Your task to perform on an android device: add a contact in the contacts app Image 0: 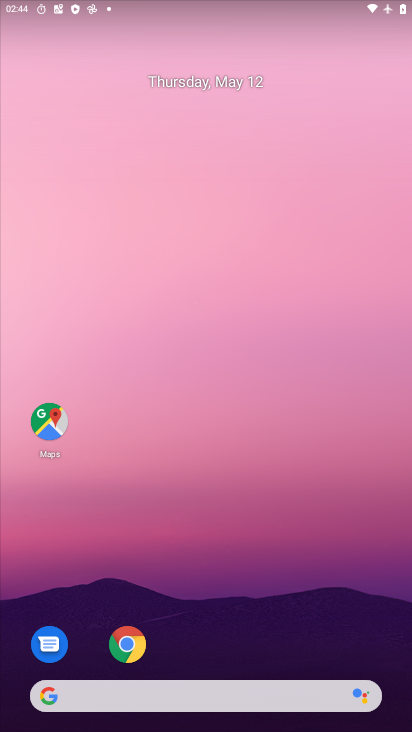
Step 0: drag from (260, 554) to (157, 38)
Your task to perform on an android device: add a contact in the contacts app Image 1: 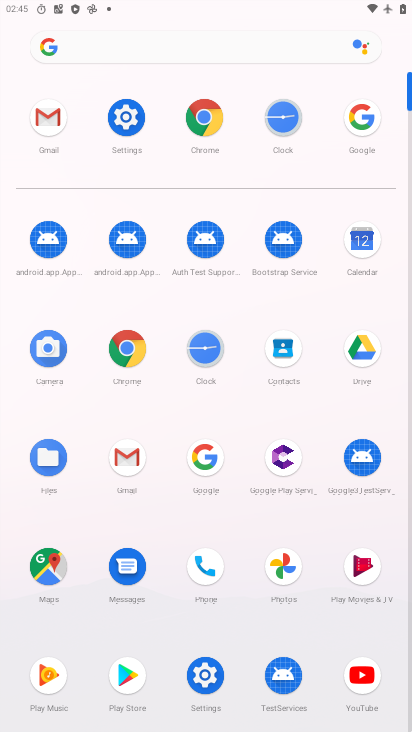
Step 1: click (279, 360)
Your task to perform on an android device: add a contact in the contacts app Image 2: 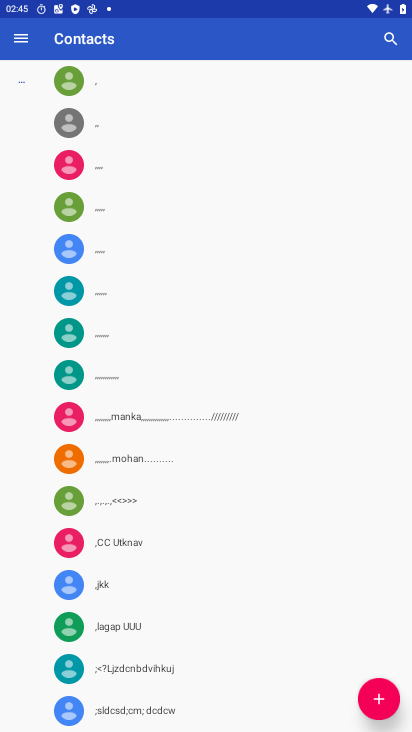
Step 2: click (376, 700)
Your task to perform on an android device: add a contact in the contacts app Image 3: 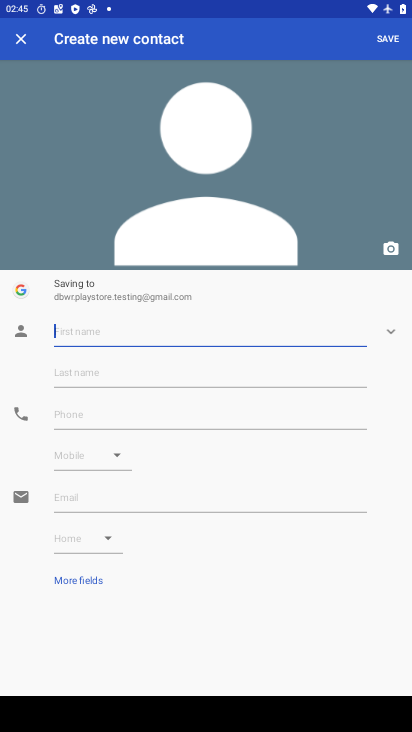
Step 3: type "fgsdfgs"
Your task to perform on an android device: add a contact in the contacts app Image 4: 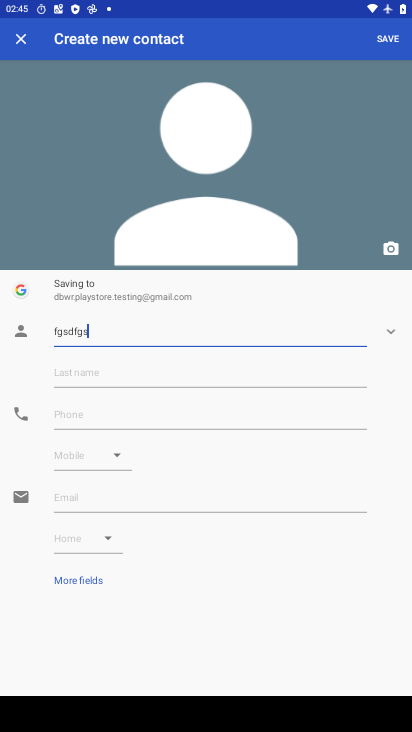
Step 4: click (131, 370)
Your task to perform on an android device: add a contact in the contacts app Image 5: 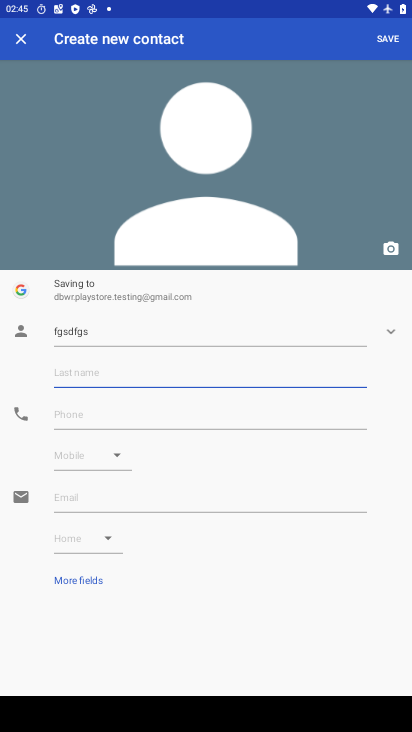
Step 5: type "fgsdfg"
Your task to perform on an android device: add a contact in the contacts app Image 6: 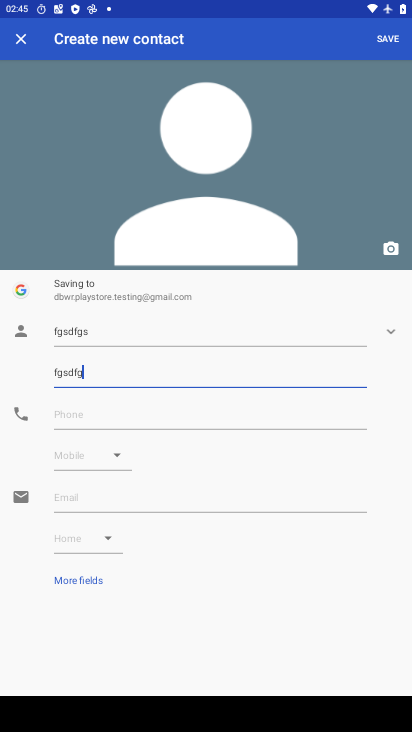
Step 6: click (124, 412)
Your task to perform on an android device: add a contact in the contacts app Image 7: 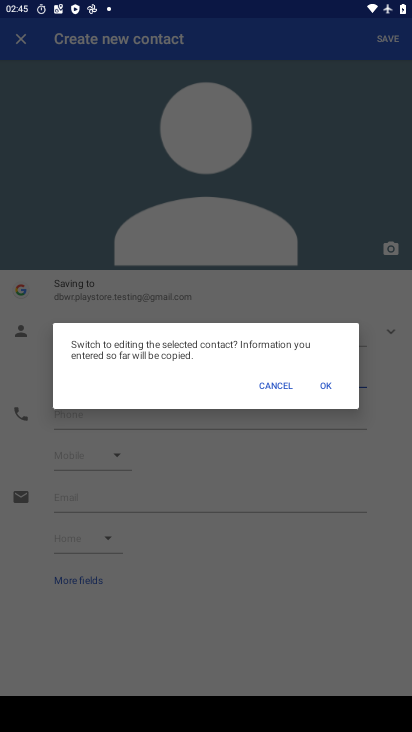
Step 7: type "56456345"
Your task to perform on an android device: add a contact in the contacts app Image 8: 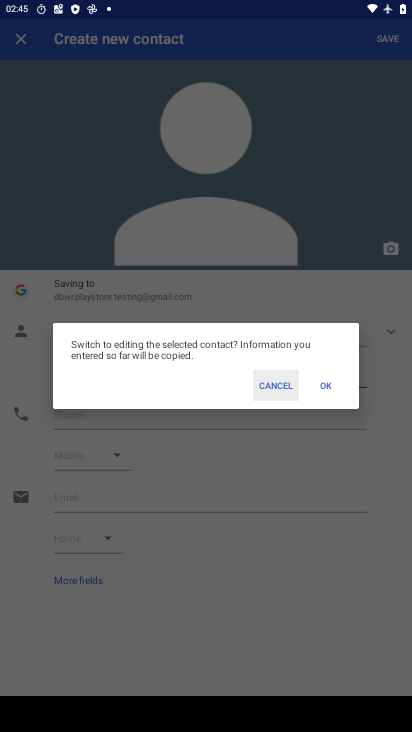
Step 8: type ""
Your task to perform on an android device: add a contact in the contacts app Image 9: 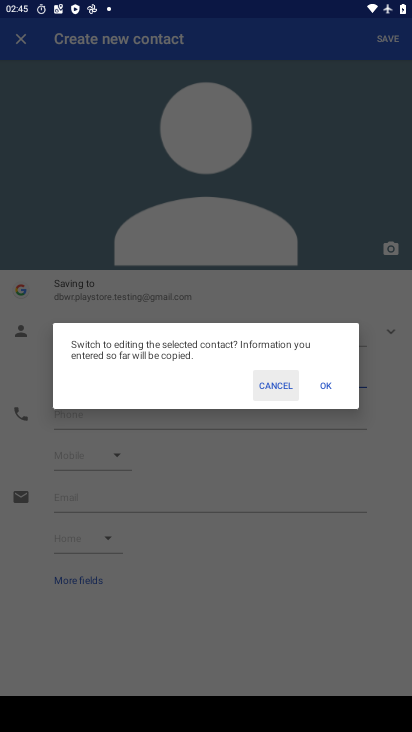
Step 9: click (279, 383)
Your task to perform on an android device: add a contact in the contacts app Image 10: 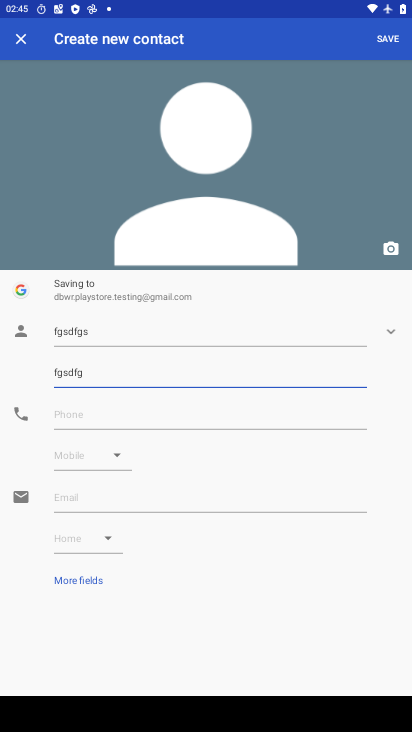
Step 10: click (213, 422)
Your task to perform on an android device: add a contact in the contacts app Image 11: 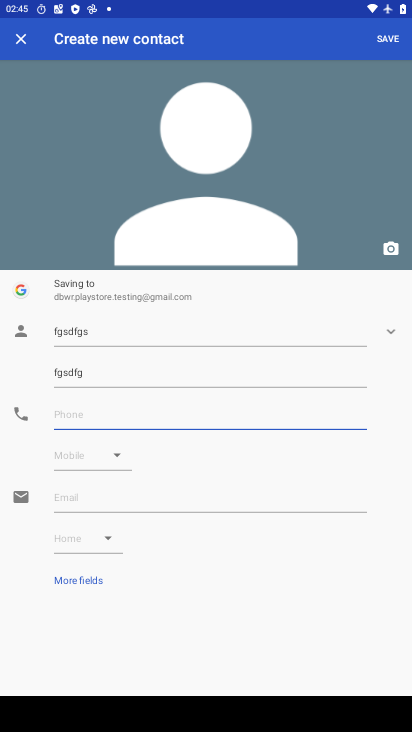
Step 11: type "56745675467"
Your task to perform on an android device: add a contact in the contacts app Image 12: 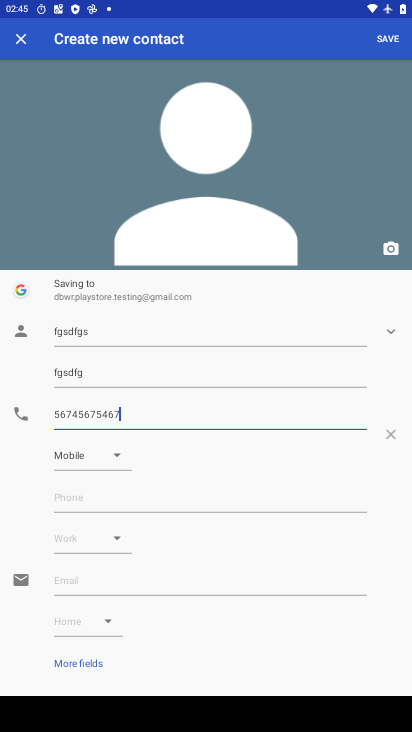
Step 12: click (394, 27)
Your task to perform on an android device: add a contact in the contacts app Image 13: 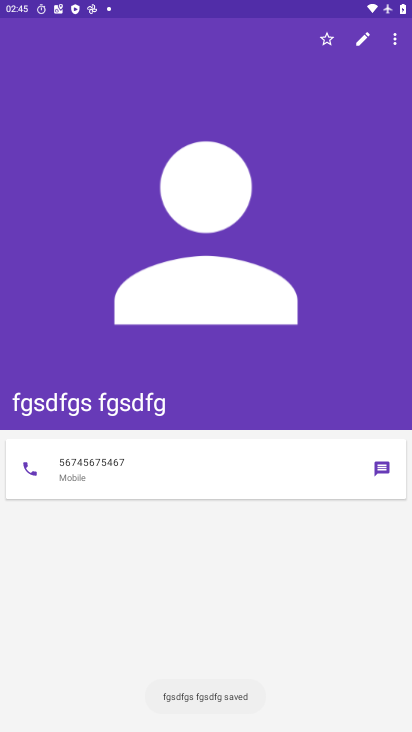
Step 13: task complete